Your task to perform on an android device: check android version Image 0: 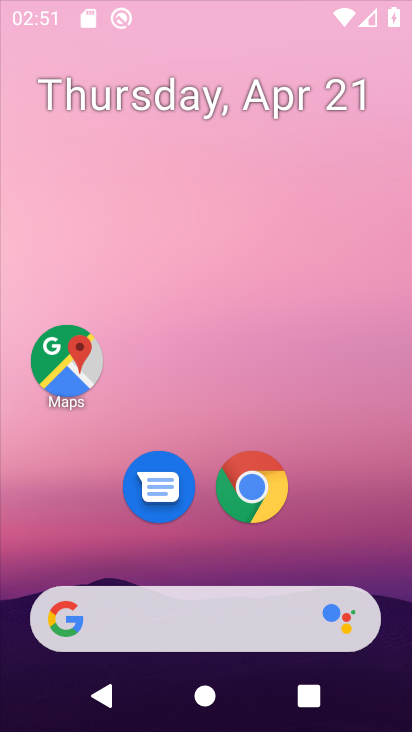
Step 0: click (364, 168)
Your task to perform on an android device: check android version Image 1: 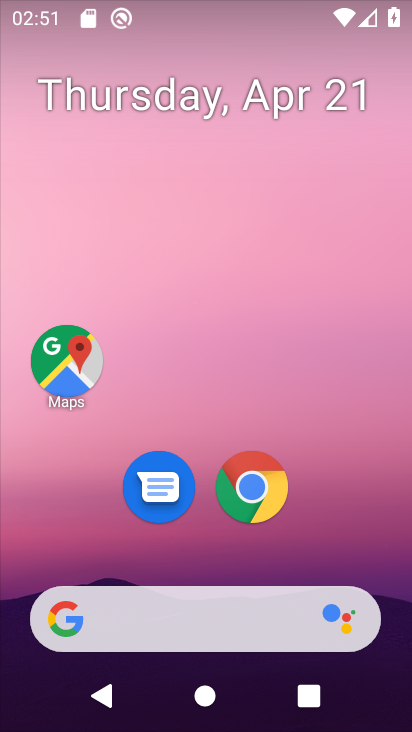
Step 1: drag from (205, 566) to (236, 43)
Your task to perform on an android device: check android version Image 2: 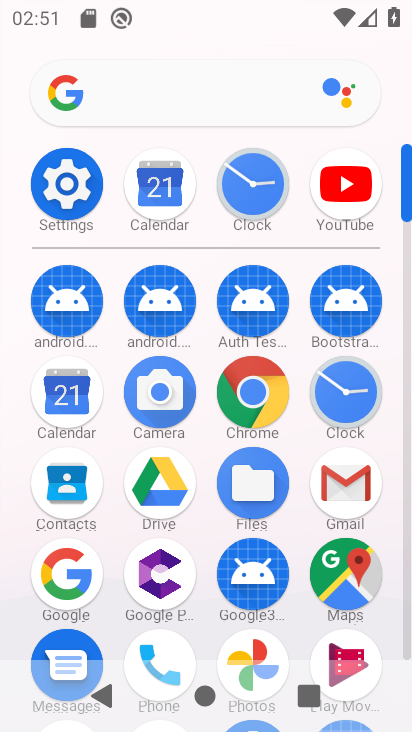
Step 2: click (37, 154)
Your task to perform on an android device: check android version Image 3: 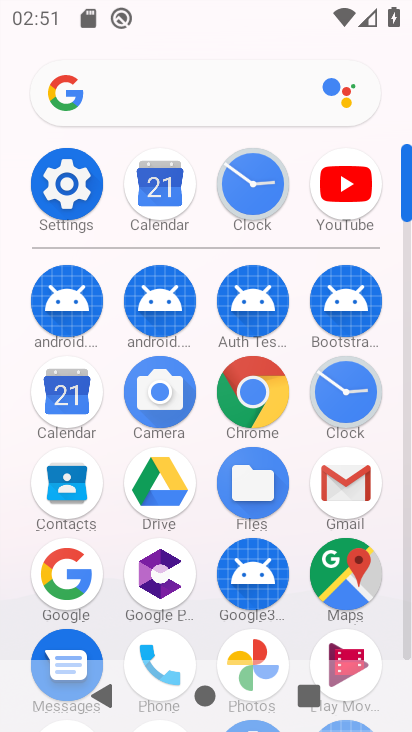
Step 3: click (55, 163)
Your task to perform on an android device: check android version Image 4: 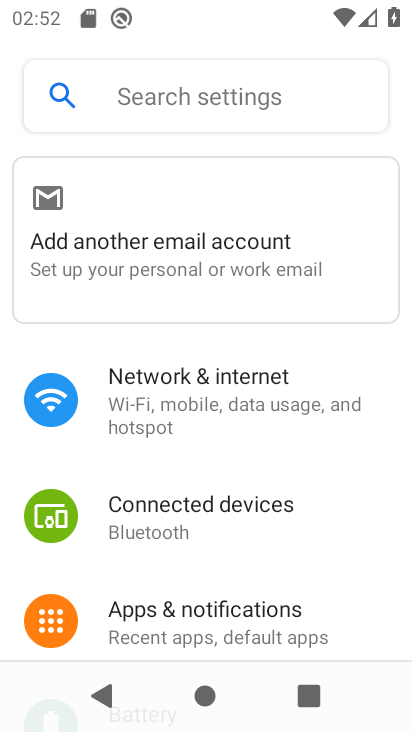
Step 4: drag from (222, 617) to (367, 103)
Your task to perform on an android device: check android version Image 5: 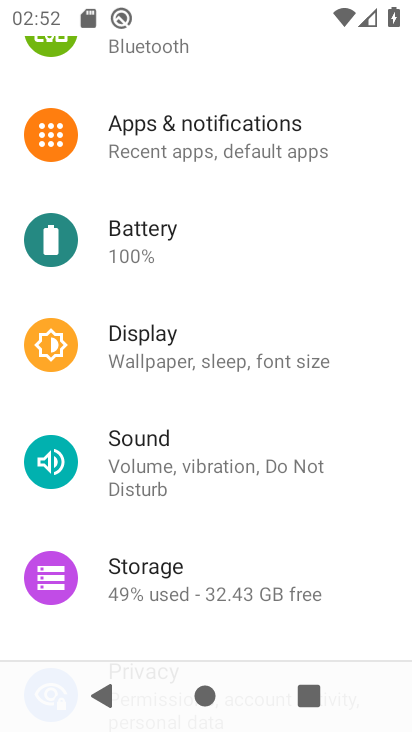
Step 5: drag from (211, 524) to (262, 334)
Your task to perform on an android device: check android version Image 6: 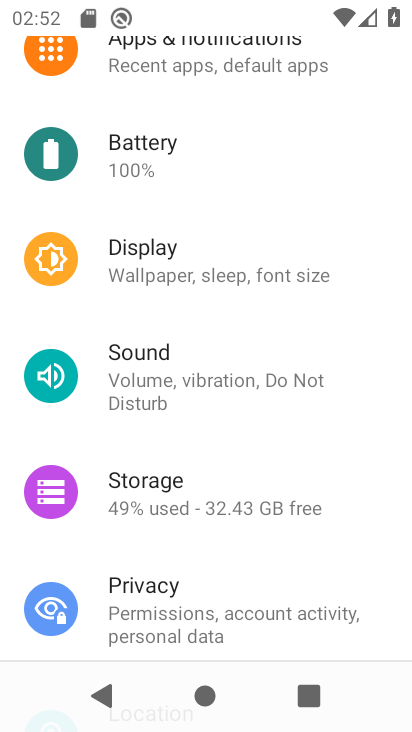
Step 6: drag from (231, 541) to (266, 231)
Your task to perform on an android device: check android version Image 7: 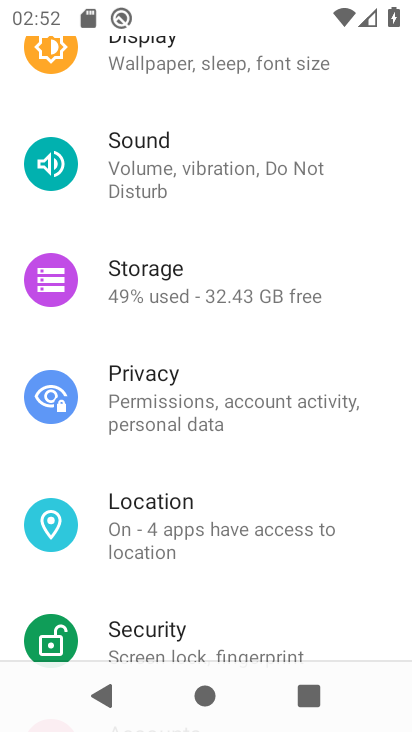
Step 7: drag from (194, 613) to (334, 1)
Your task to perform on an android device: check android version Image 8: 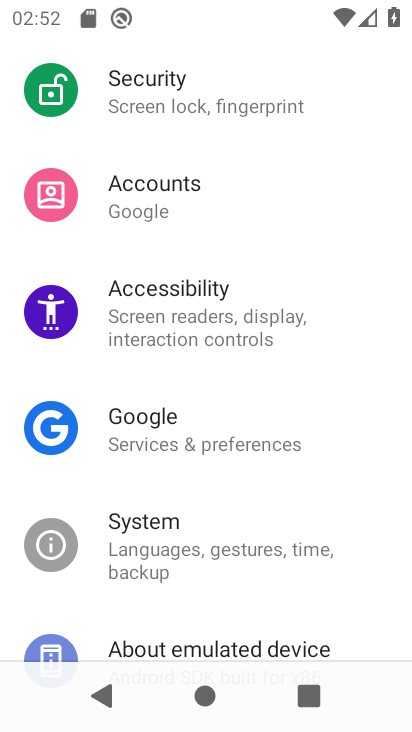
Step 8: drag from (203, 635) to (321, 21)
Your task to perform on an android device: check android version Image 9: 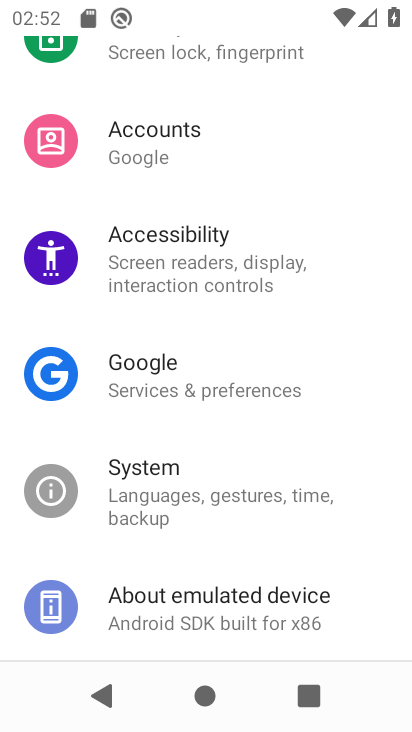
Step 9: click (197, 606)
Your task to perform on an android device: check android version Image 10: 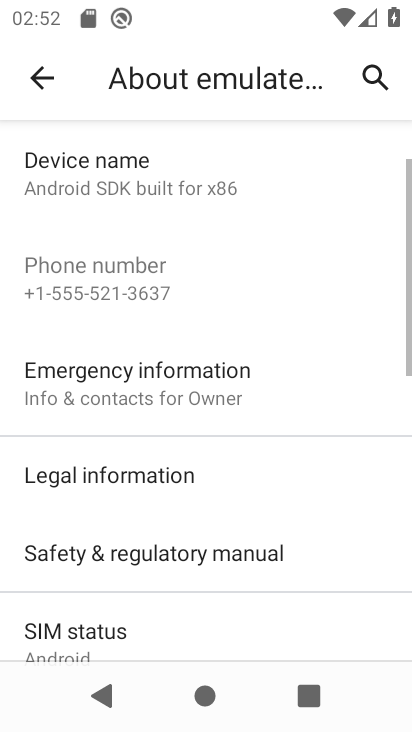
Step 10: drag from (208, 506) to (306, 207)
Your task to perform on an android device: check android version Image 11: 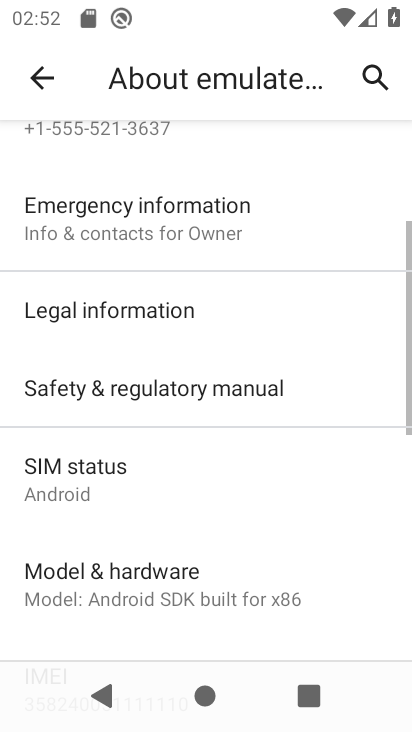
Step 11: drag from (198, 419) to (359, 101)
Your task to perform on an android device: check android version Image 12: 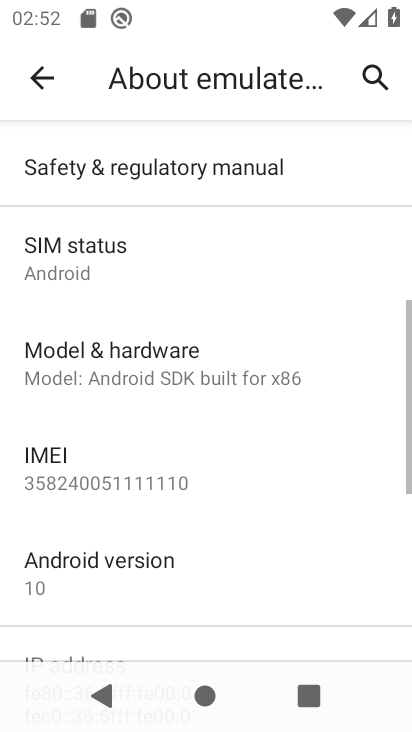
Step 12: click (137, 576)
Your task to perform on an android device: check android version Image 13: 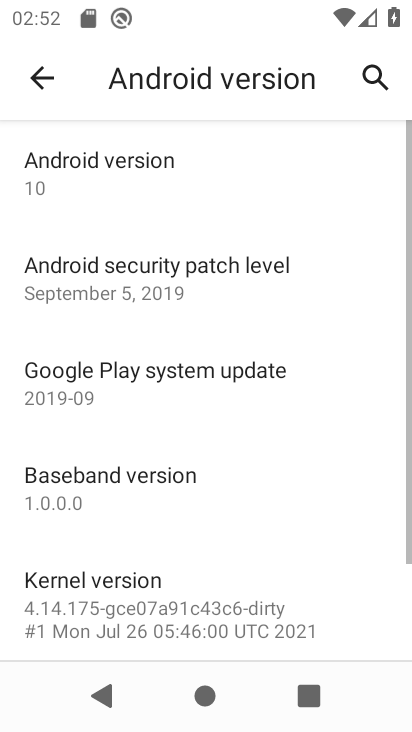
Step 13: task complete